Your task to perform on an android device: Open Youtube and go to the subscriptions tab Image 0: 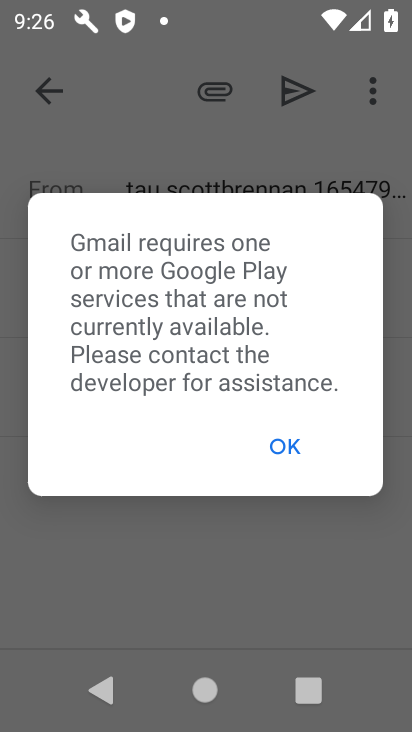
Step 0: click (270, 449)
Your task to perform on an android device: Open Youtube and go to the subscriptions tab Image 1: 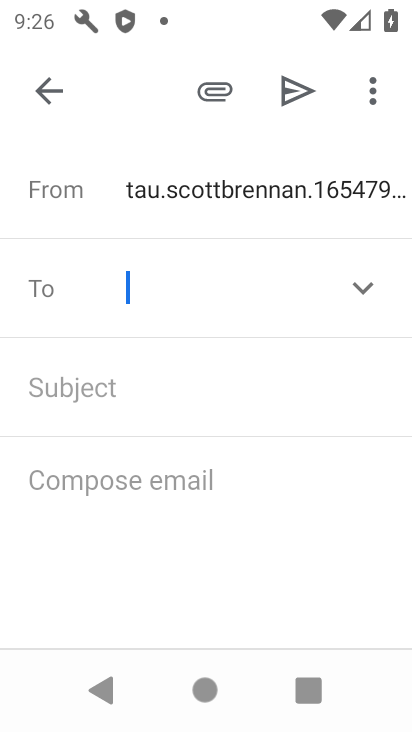
Step 1: click (51, 103)
Your task to perform on an android device: Open Youtube and go to the subscriptions tab Image 2: 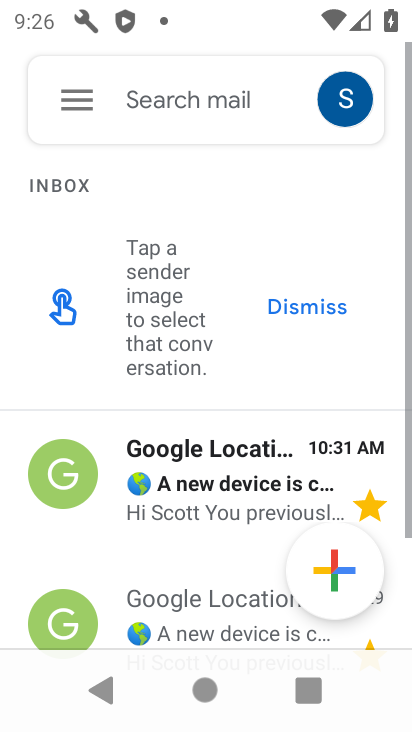
Step 2: press back button
Your task to perform on an android device: Open Youtube and go to the subscriptions tab Image 3: 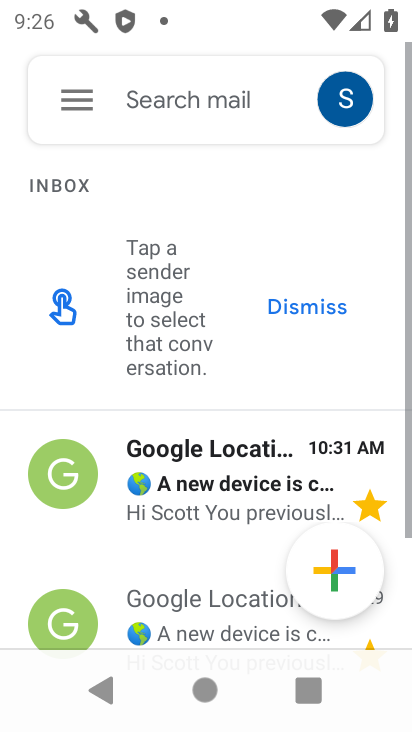
Step 3: press back button
Your task to perform on an android device: Open Youtube and go to the subscriptions tab Image 4: 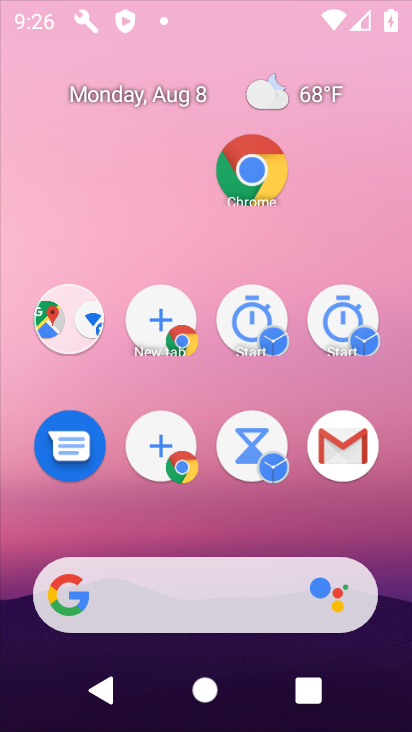
Step 4: press back button
Your task to perform on an android device: Open Youtube and go to the subscriptions tab Image 5: 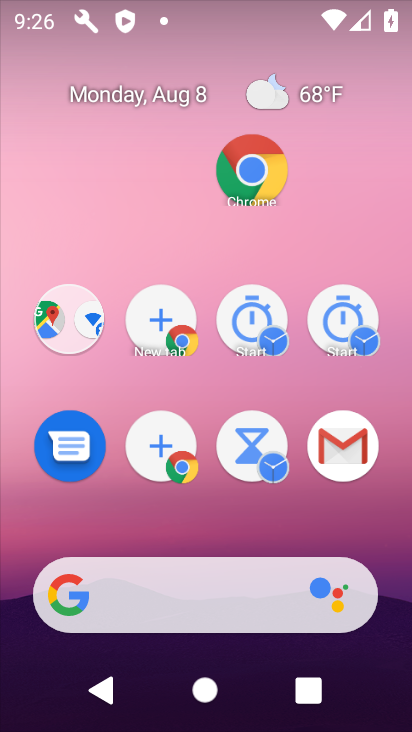
Step 5: press back button
Your task to perform on an android device: Open Youtube and go to the subscriptions tab Image 6: 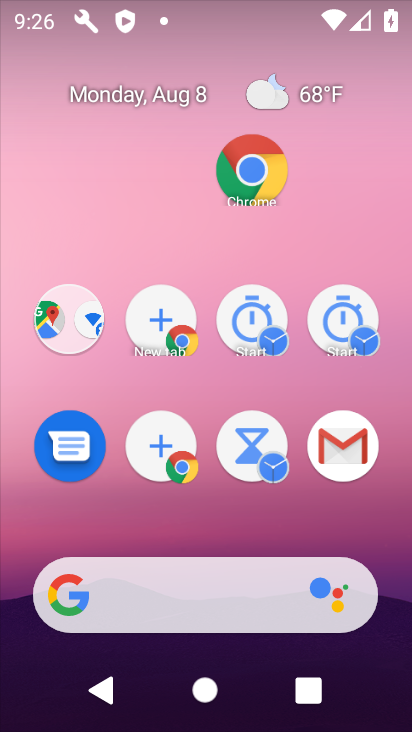
Step 6: press back button
Your task to perform on an android device: Open Youtube and go to the subscriptions tab Image 7: 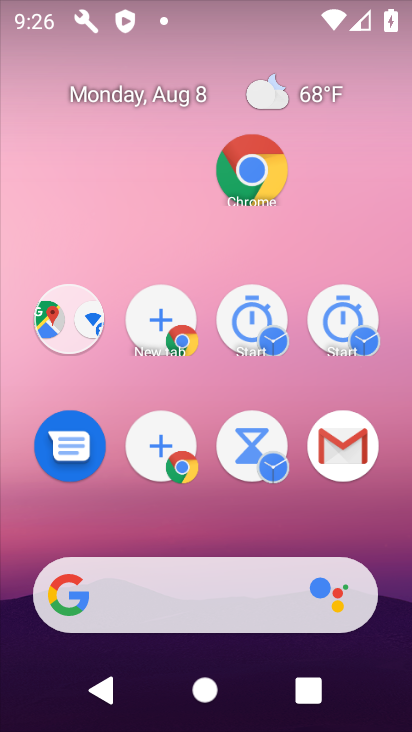
Step 7: drag from (264, 668) to (249, 291)
Your task to perform on an android device: Open Youtube and go to the subscriptions tab Image 8: 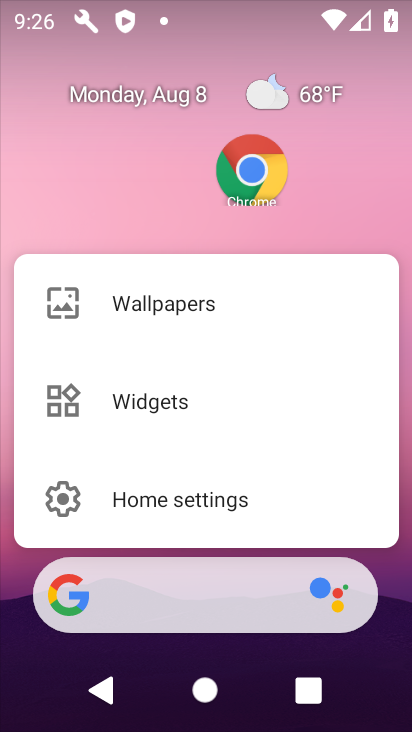
Step 8: drag from (258, 566) to (214, 179)
Your task to perform on an android device: Open Youtube and go to the subscriptions tab Image 9: 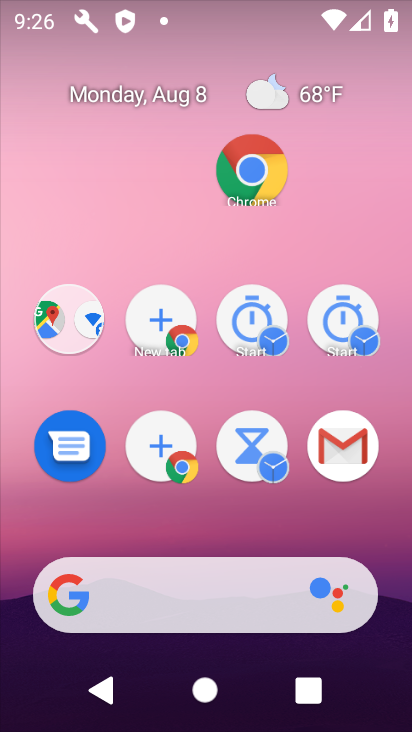
Step 9: press home button
Your task to perform on an android device: Open Youtube and go to the subscriptions tab Image 10: 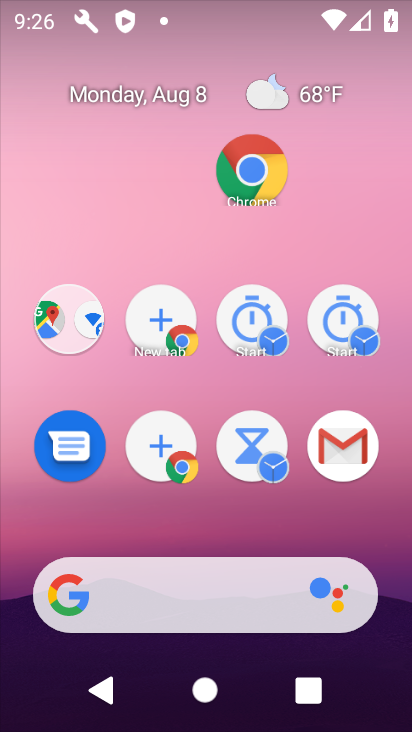
Step 10: press home button
Your task to perform on an android device: Open Youtube and go to the subscriptions tab Image 11: 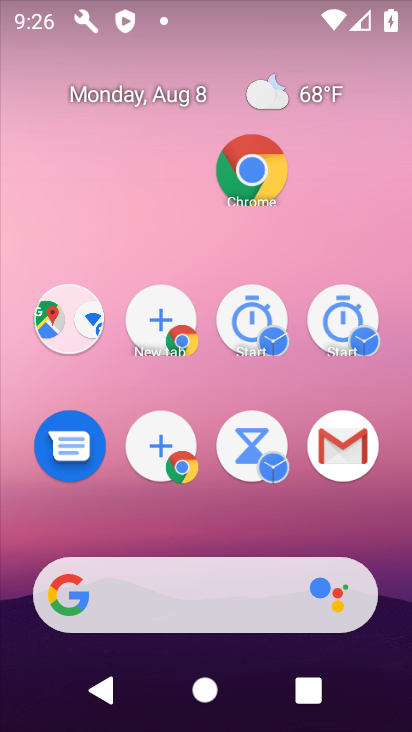
Step 11: press home button
Your task to perform on an android device: Open Youtube and go to the subscriptions tab Image 12: 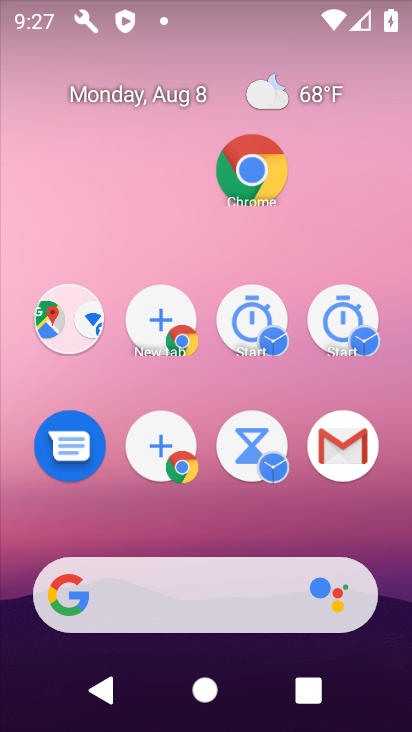
Step 12: press home button
Your task to perform on an android device: Open Youtube and go to the subscriptions tab Image 13: 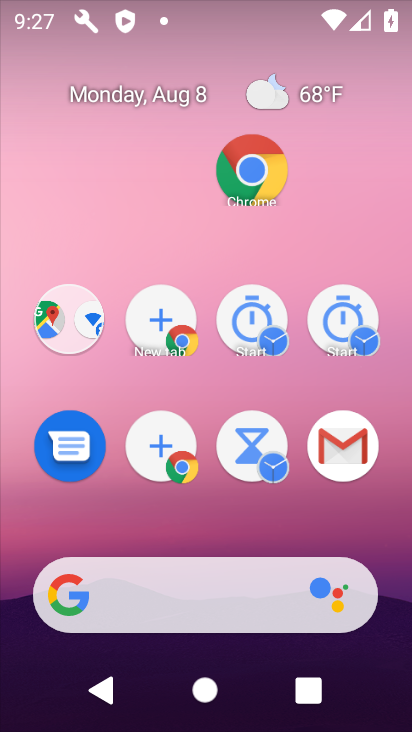
Step 13: press home button
Your task to perform on an android device: Open Youtube and go to the subscriptions tab Image 14: 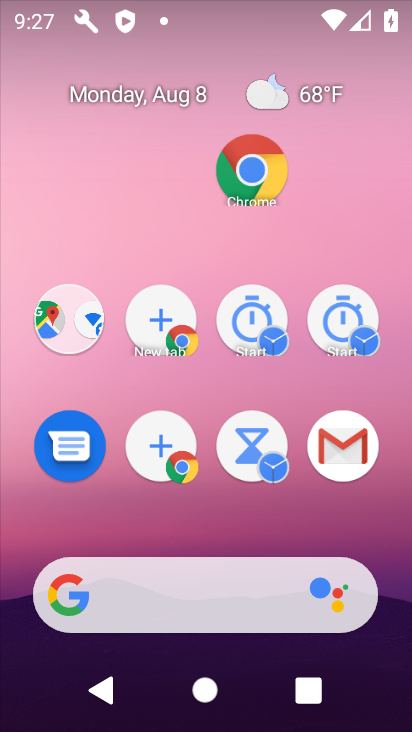
Step 14: press back button
Your task to perform on an android device: Open Youtube and go to the subscriptions tab Image 15: 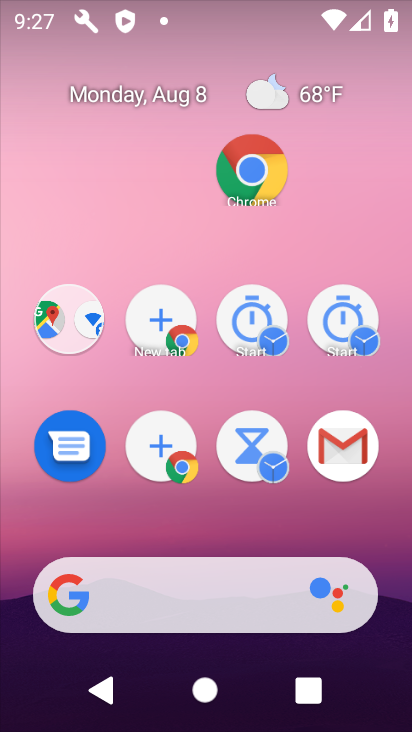
Step 15: press back button
Your task to perform on an android device: Open Youtube and go to the subscriptions tab Image 16: 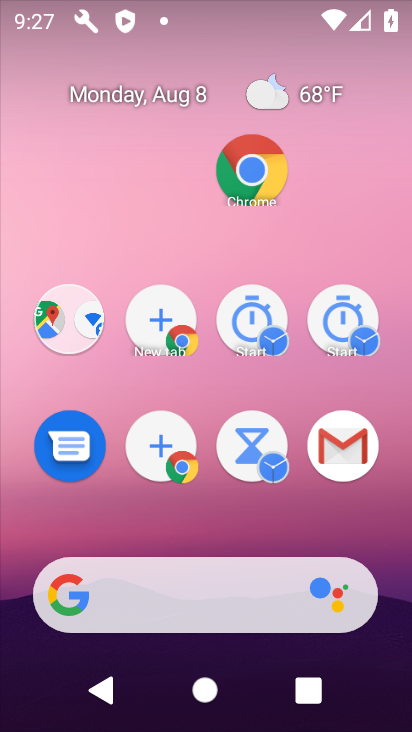
Step 16: drag from (280, 677) to (243, 436)
Your task to perform on an android device: Open Youtube and go to the subscriptions tab Image 17: 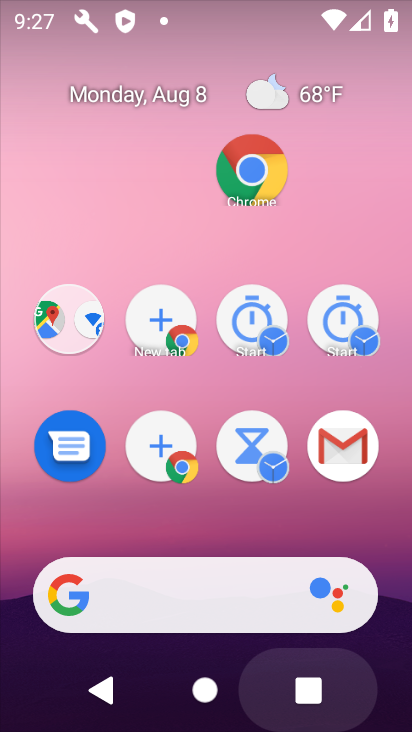
Step 17: drag from (254, 574) to (245, 305)
Your task to perform on an android device: Open Youtube and go to the subscriptions tab Image 18: 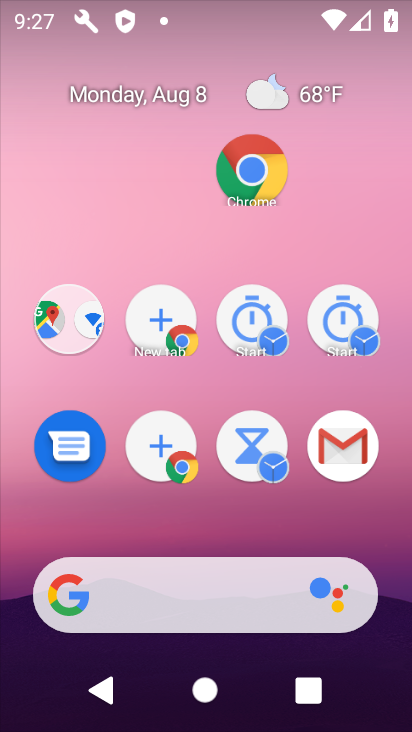
Step 18: drag from (269, 438) to (260, 310)
Your task to perform on an android device: Open Youtube and go to the subscriptions tab Image 19: 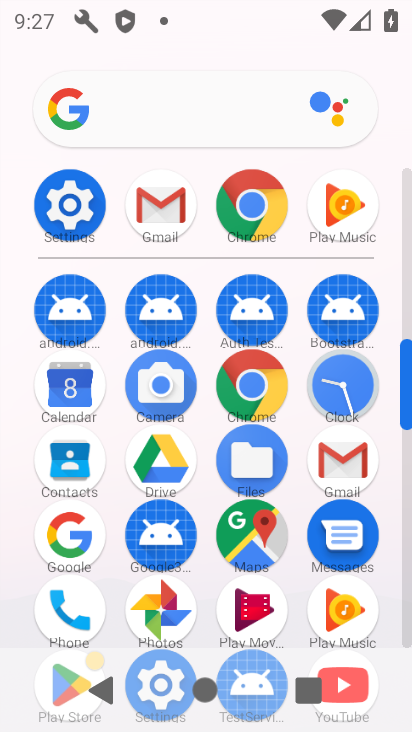
Step 19: drag from (308, 499) to (277, 191)
Your task to perform on an android device: Open Youtube and go to the subscriptions tab Image 20: 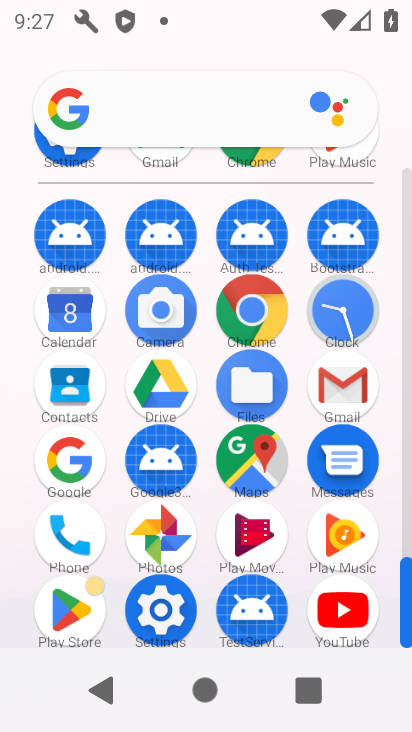
Step 20: click (350, 607)
Your task to perform on an android device: Open Youtube and go to the subscriptions tab Image 21: 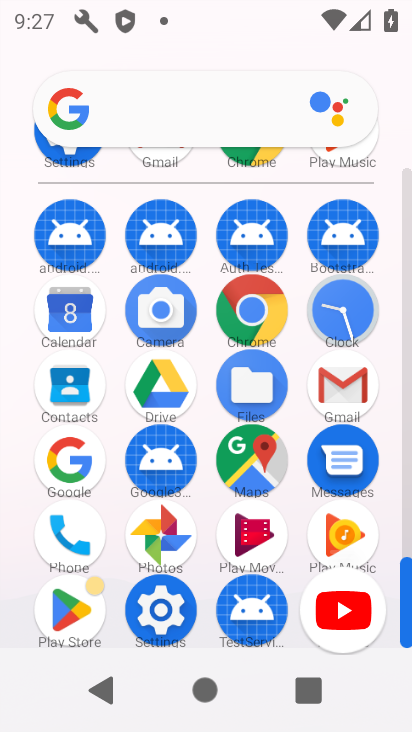
Step 21: click (349, 607)
Your task to perform on an android device: Open Youtube and go to the subscriptions tab Image 22: 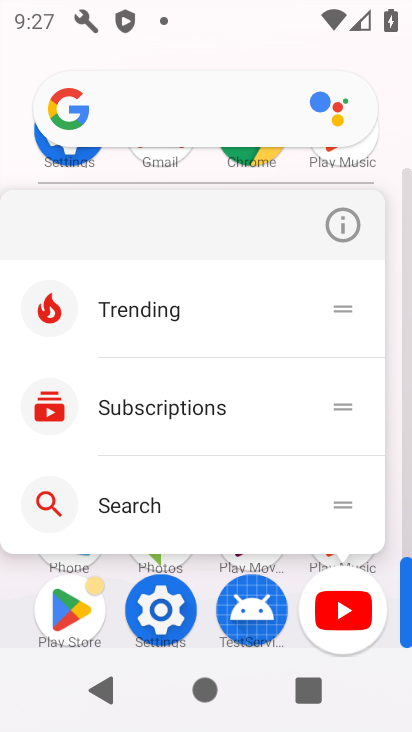
Step 22: click (338, 606)
Your task to perform on an android device: Open Youtube and go to the subscriptions tab Image 23: 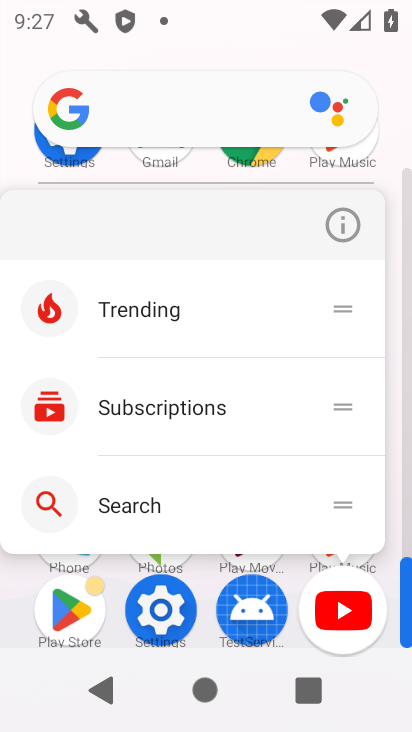
Step 23: click (338, 606)
Your task to perform on an android device: Open Youtube and go to the subscriptions tab Image 24: 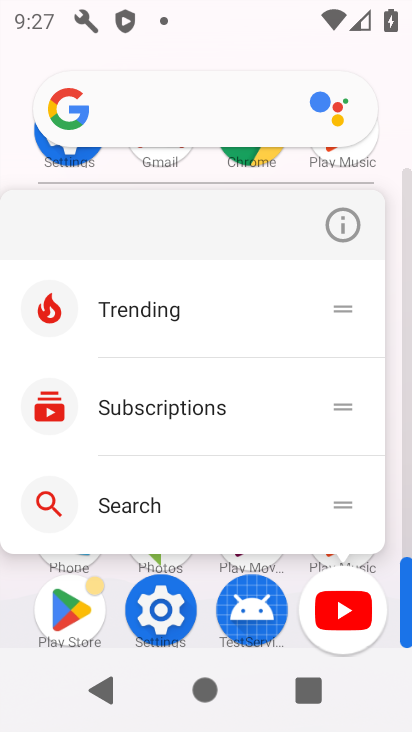
Step 24: click (339, 614)
Your task to perform on an android device: Open Youtube and go to the subscriptions tab Image 25: 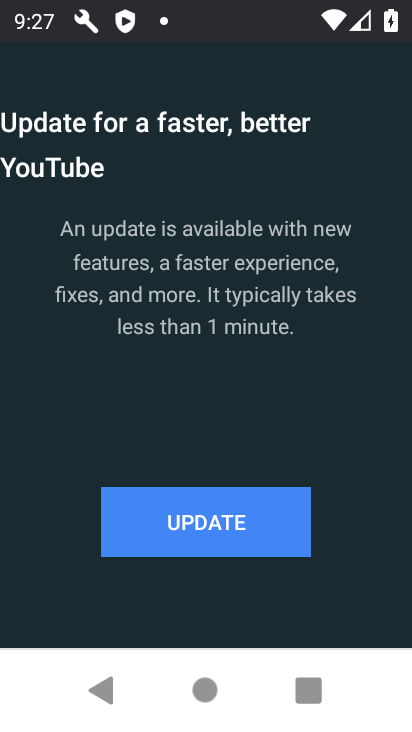
Step 25: press back button
Your task to perform on an android device: Open Youtube and go to the subscriptions tab Image 26: 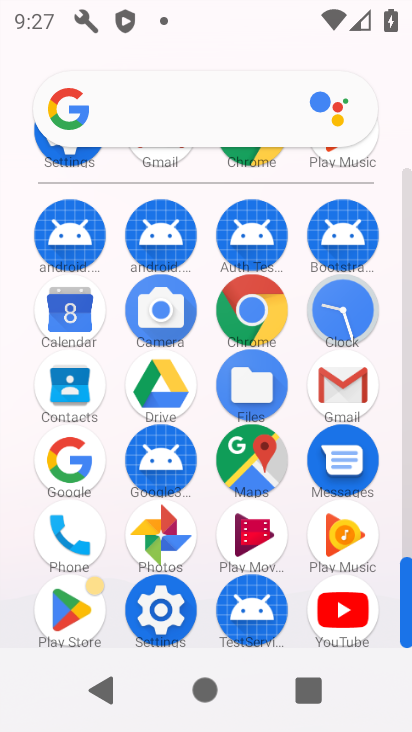
Step 26: click (336, 611)
Your task to perform on an android device: Open Youtube and go to the subscriptions tab Image 27: 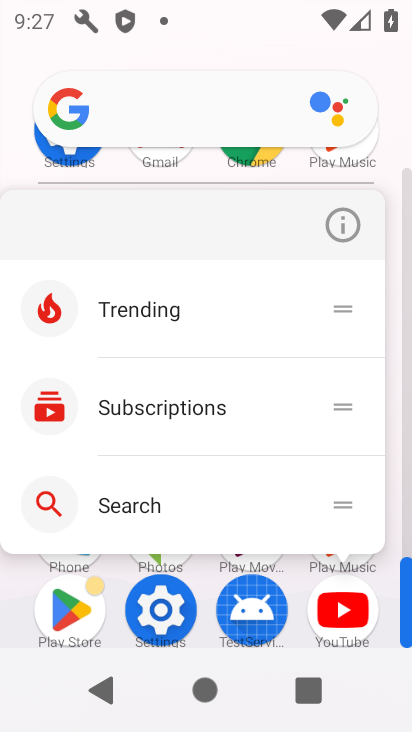
Step 27: click (159, 400)
Your task to perform on an android device: Open Youtube and go to the subscriptions tab Image 28: 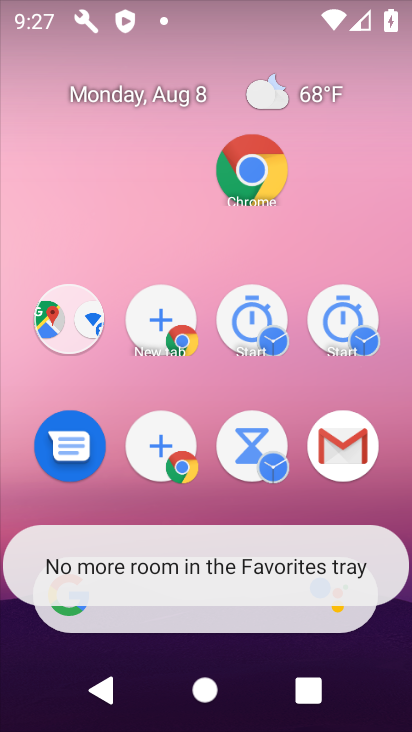
Step 28: task complete